Your task to perform on an android device: What is the recent news? Image 0: 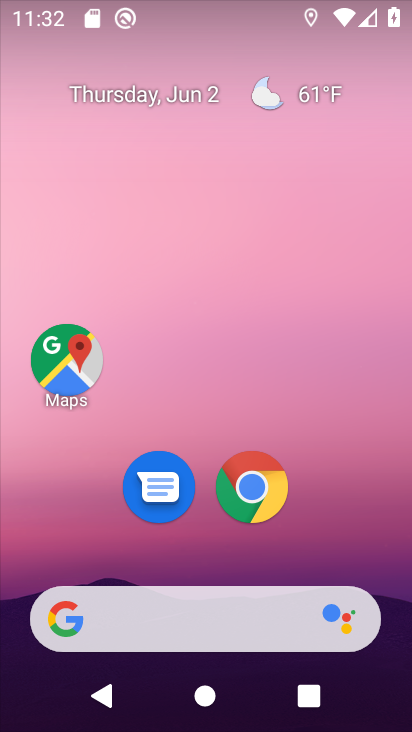
Step 0: drag from (345, 516) to (243, 170)
Your task to perform on an android device: What is the recent news? Image 1: 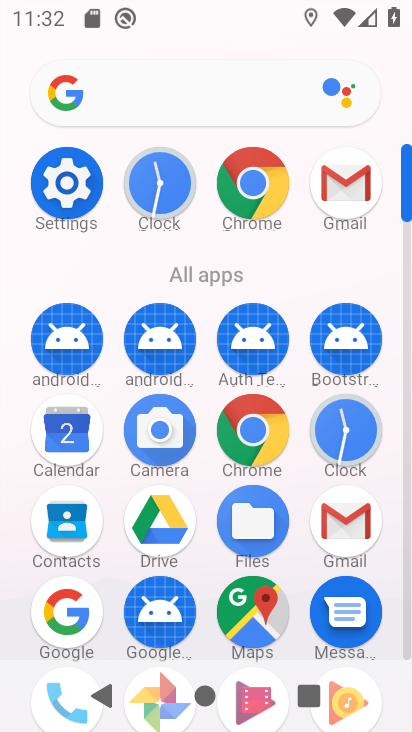
Step 1: drag from (307, 283) to (332, 103)
Your task to perform on an android device: What is the recent news? Image 2: 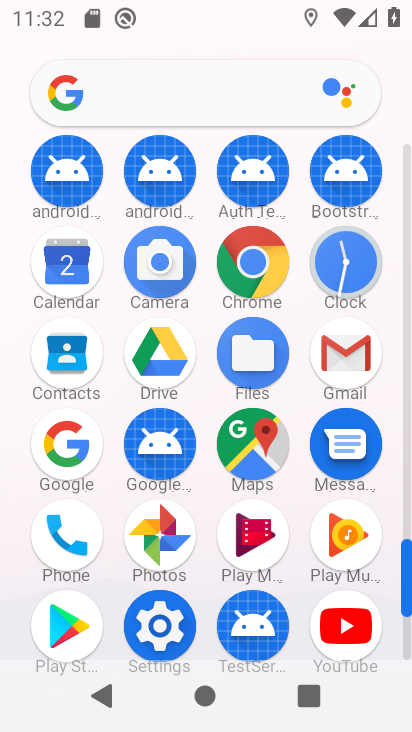
Step 2: click (59, 446)
Your task to perform on an android device: What is the recent news? Image 3: 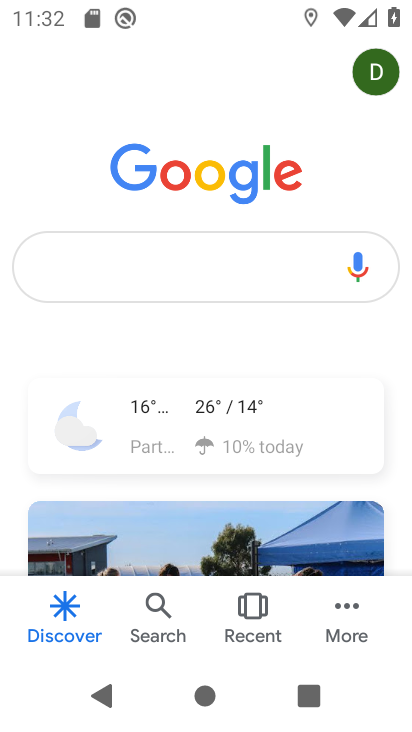
Step 3: click (153, 280)
Your task to perform on an android device: What is the recent news? Image 4: 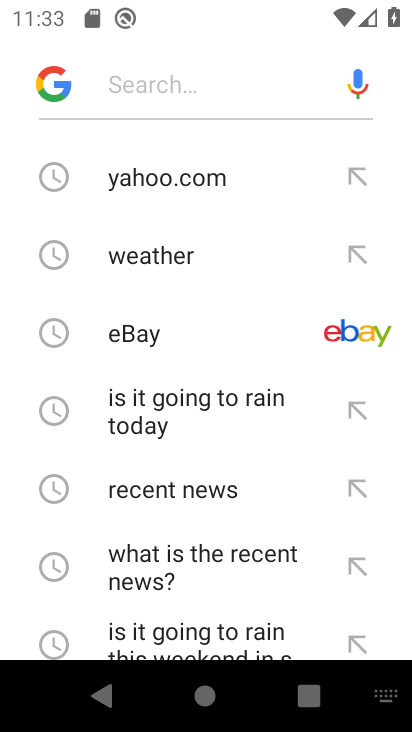
Step 4: click (175, 551)
Your task to perform on an android device: What is the recent news? Image 5: 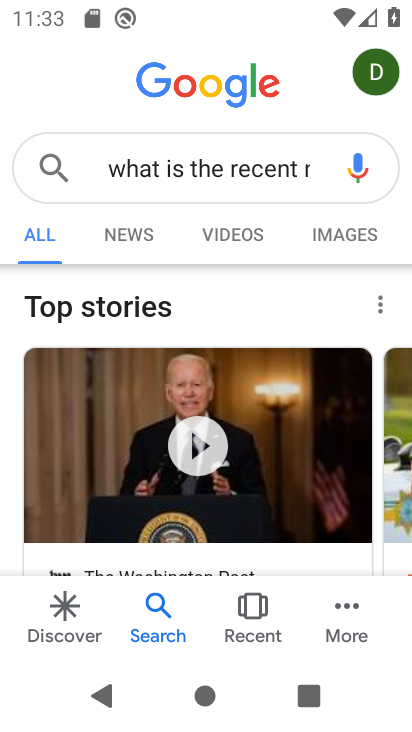
Step 5: drag from (276, 454) to (336, 304)
Your task to perform on an android device: What is the recent news? Image 6: 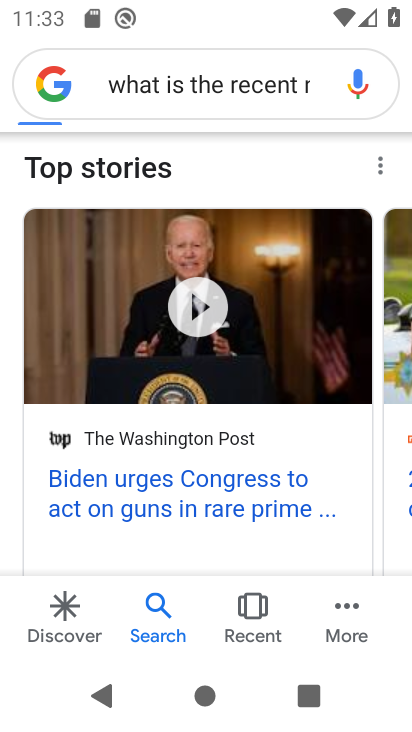
Step 6: click (240, 505)
Your task to perform on an android device: What is the recent news? Image 7: 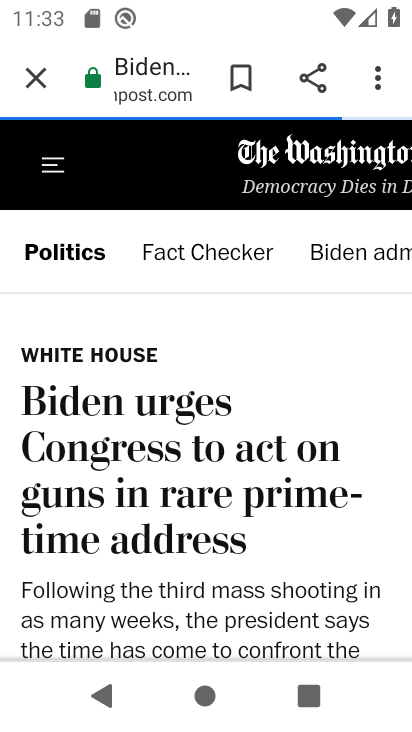
Step 7: task complete